Your task to perform on an android device: Go to battery settings Image 0: 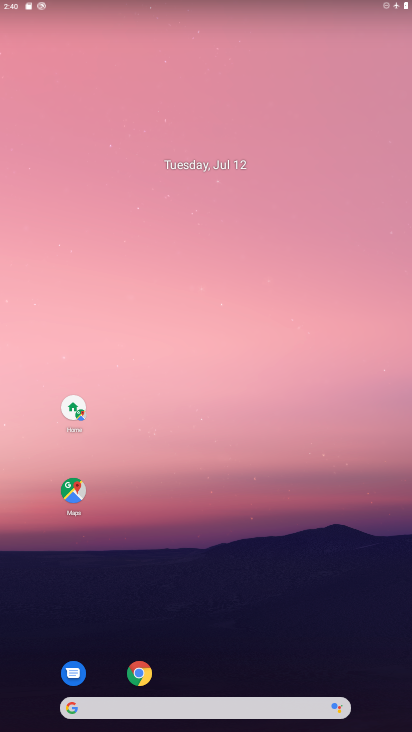
Step 0: drag from (334, 675) to (282, 392)
Your task to perform on an android device: Go to battery settings Image 1: 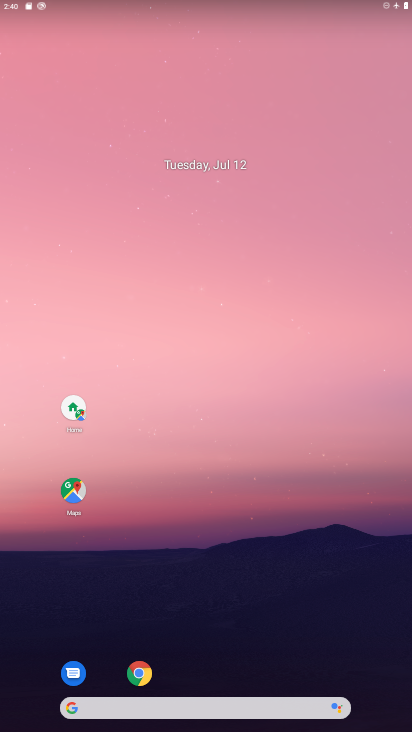
Step 1: drag from (277, 599) to (268, 203)
Your task to perform on an android device: Go to battery settings Image 2: 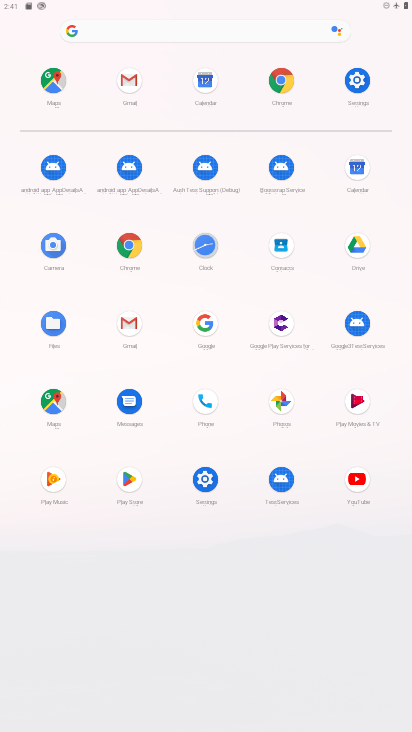
Step 2: click (354, 84)
Your task to perform on an android device: Go to battery settings Image 3: 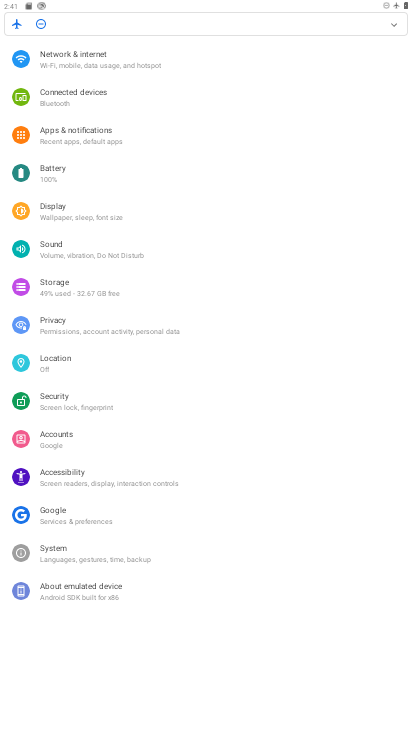
Step 3: click (63, 174)
Your task to perform on an android device: Go to battery settings Image 4: 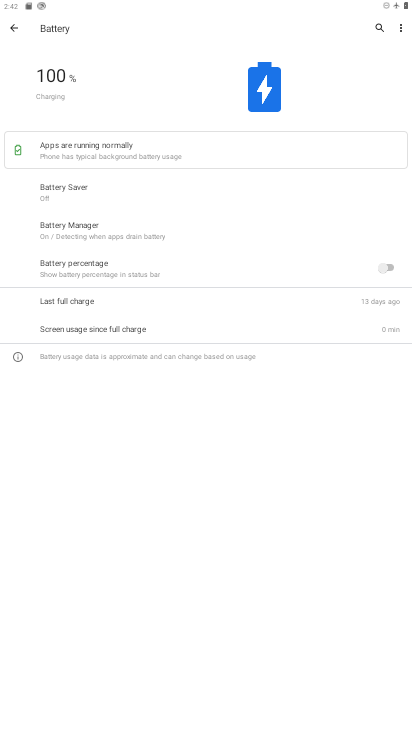
Step 4: task complete